Your task to perform on an android device: Open privacy settings Image 0: 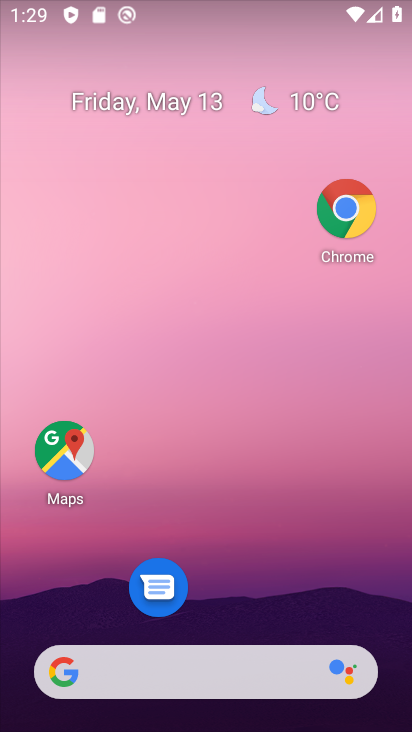
Step 0: drag from (244, 568) to (337, 47)
Your task to perform on an android device: Open privacy settings Image 1: 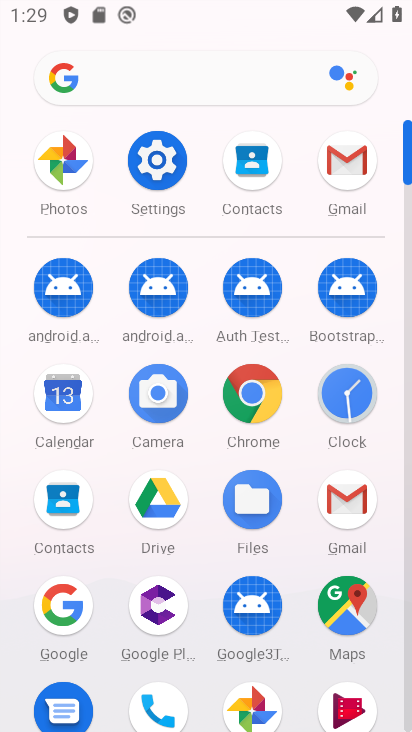
Step 1: click (165, 165)
Your task to perform on an android device: Open privacy settings Image 2: 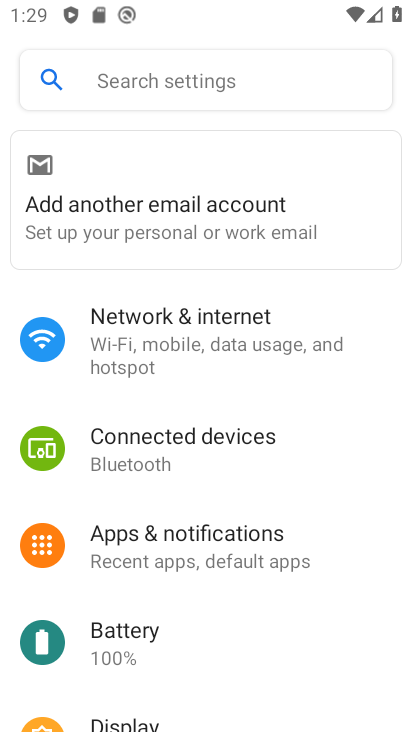
Step 2: drag from (162, 691) to (312, 111)
Your task to perform on an android device: Open privacy settings Image 3: 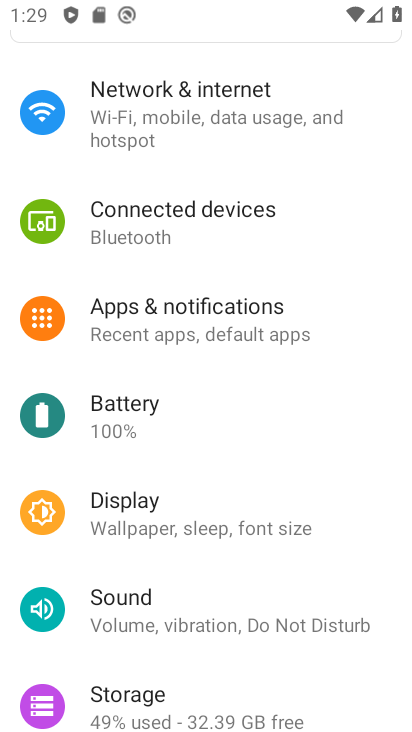
Step 3: drag from (218, 609) to (285, 71)
Your task to perform on an android device: Open privacy settings Image 4: 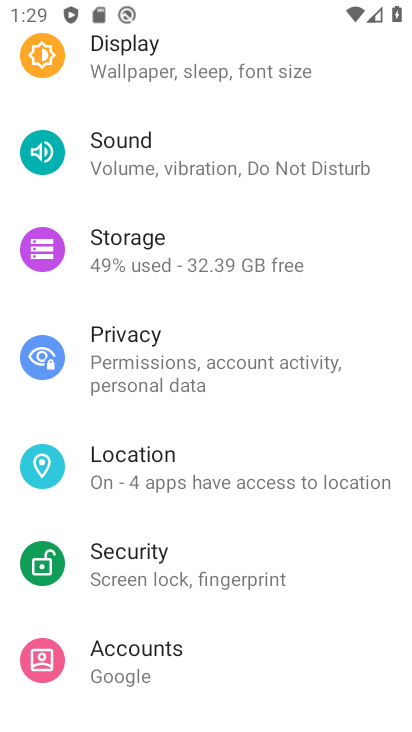
Step 4: drag from (173, 606) to (176, 392)
Your task to perform on an android device: Open privacy settings Image 5: 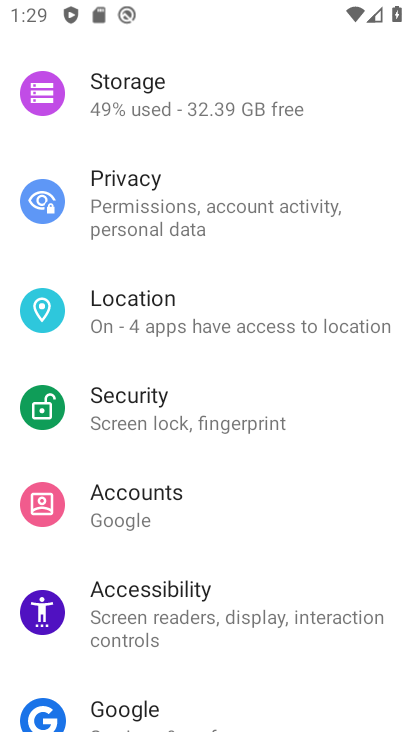
Step 5: click (121, 202)
Your task to perform on an android device: Open privacy settings Image 6: 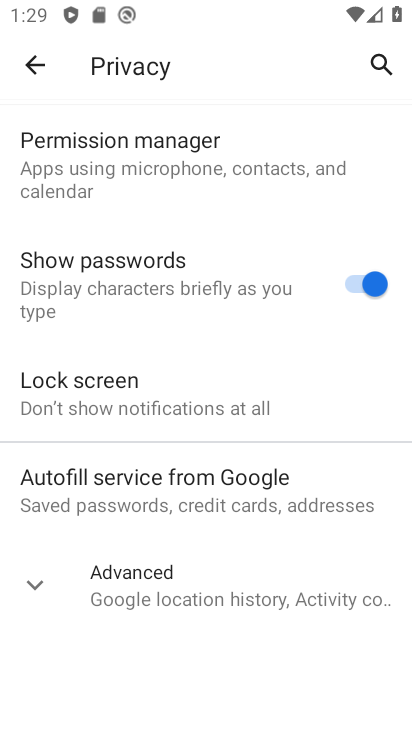
Step 6: task complete